Your task to perform on an android device: Open the Play Movies app and select the watchlist tab. Image 0: 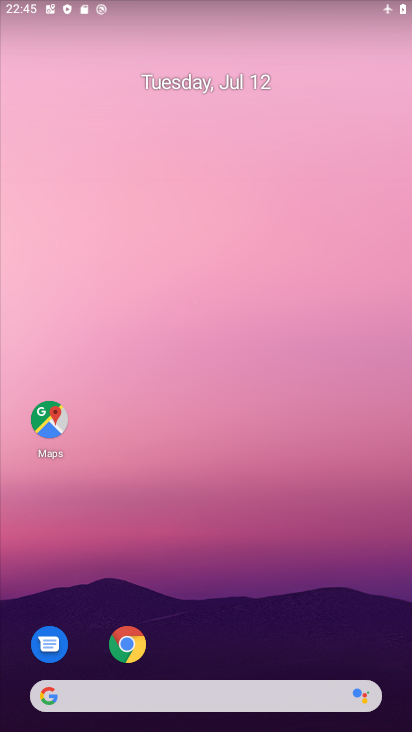
Step 0: drag from (169, 670) to (371, 0)
Your task to perform on an android device: Open the Play Movies app and select the watchlist tab. Image 1: 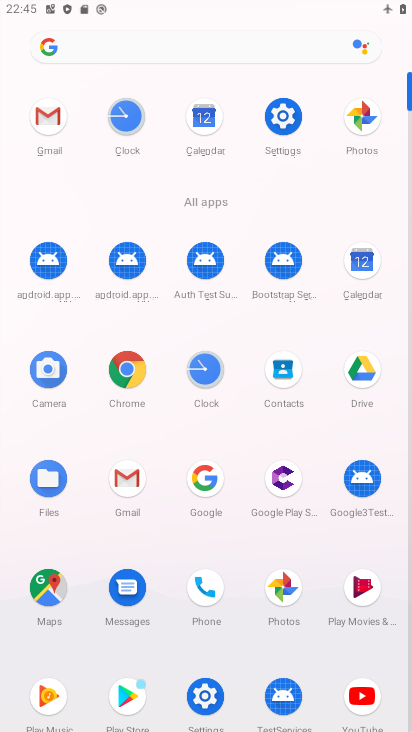
Step 1: click (359, 587)
Your task to perform on an android device: Open the Play Movies app and select the watchlist tab. Image 2: 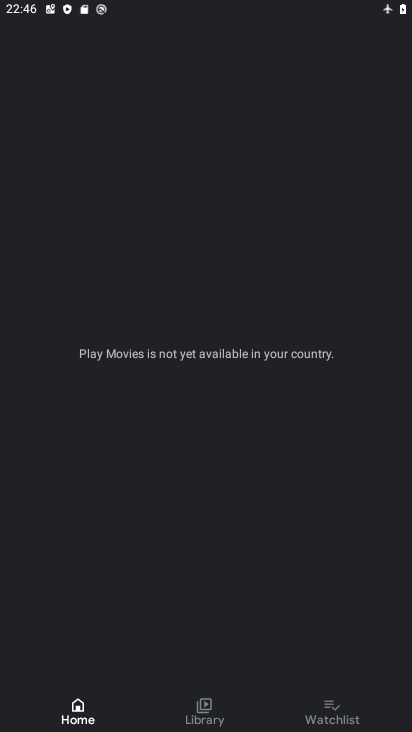
Step 2: click (335, 712)
Your task to perform on an android device: Open the Play Movies app and select the watchlist tab. Image 3: 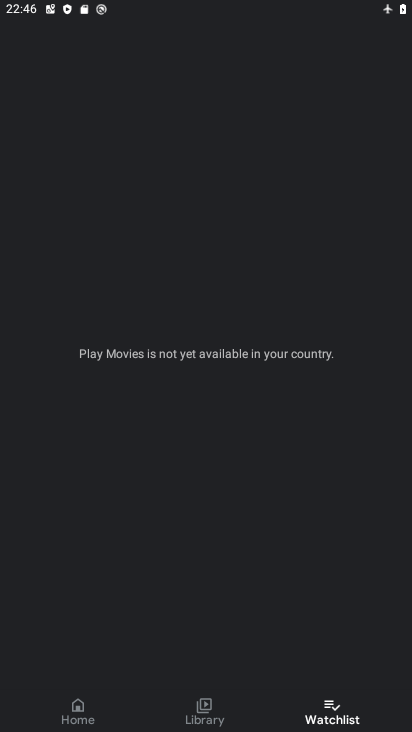
Step 3: task complete